Your task to perform on an android device: uninstall "Instagram" Image 0: 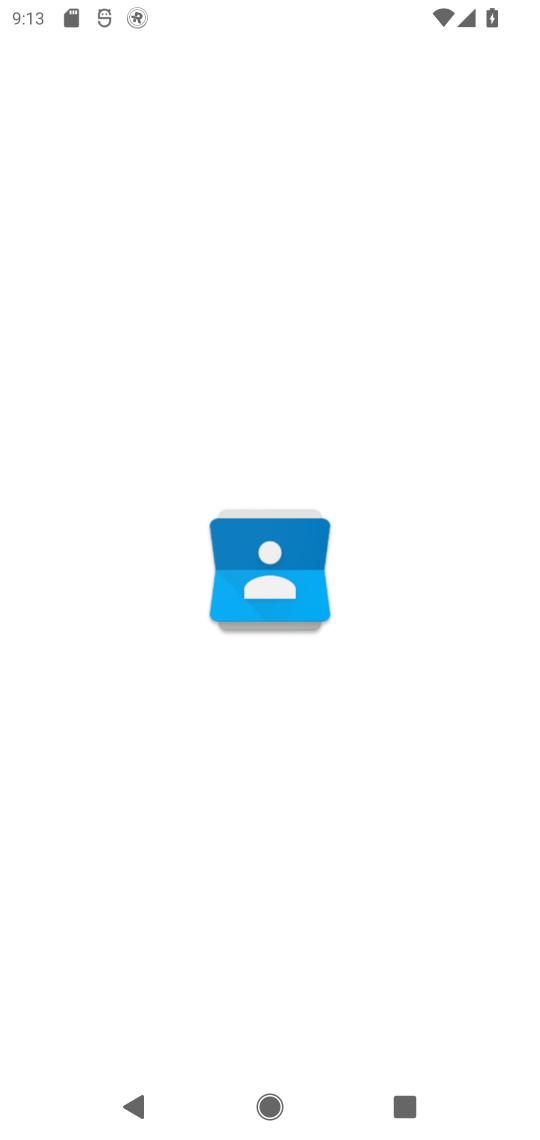
Step 0: press home button
Your task to perform on an android device: uninstall "Instagram" Image 1: 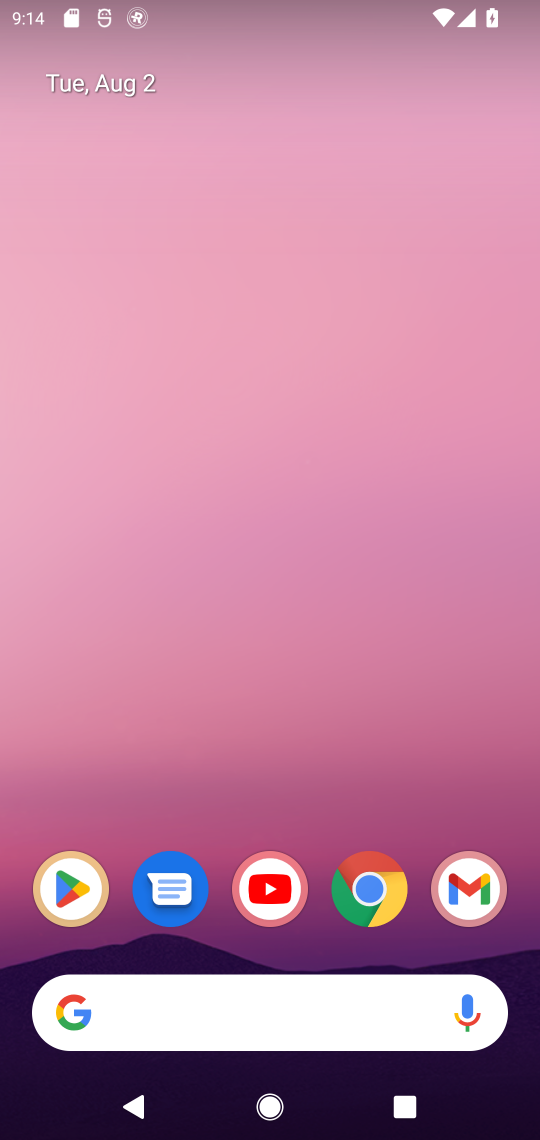
Step 1: click (77, 890)
Your task to perform on an android device: uninstall "Instagram" Image 2: 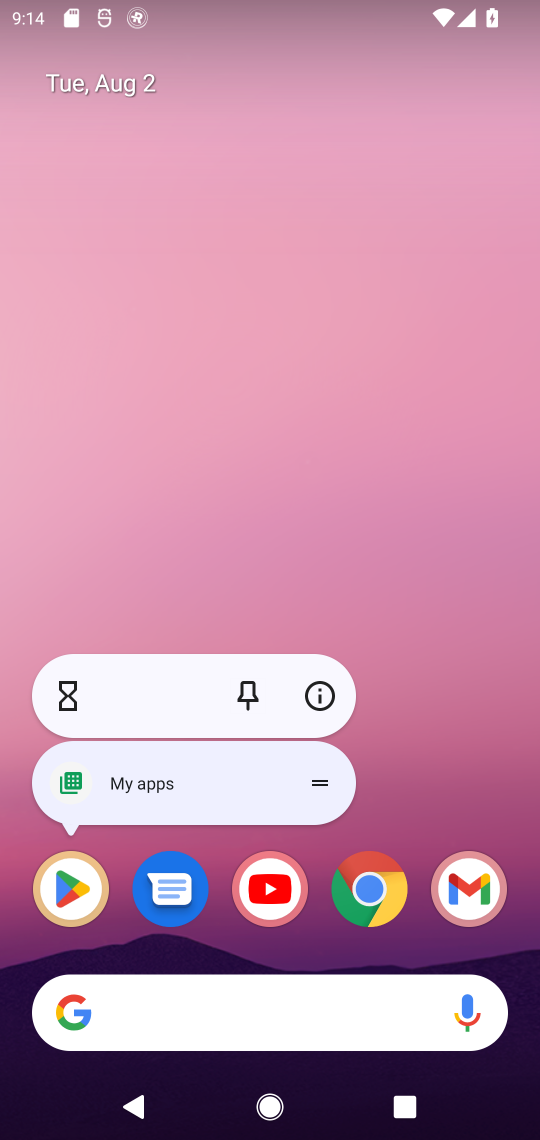
Step 2: click (77, 889)
Your task to perform on an android device: uninstall "Instagram" Image 3: 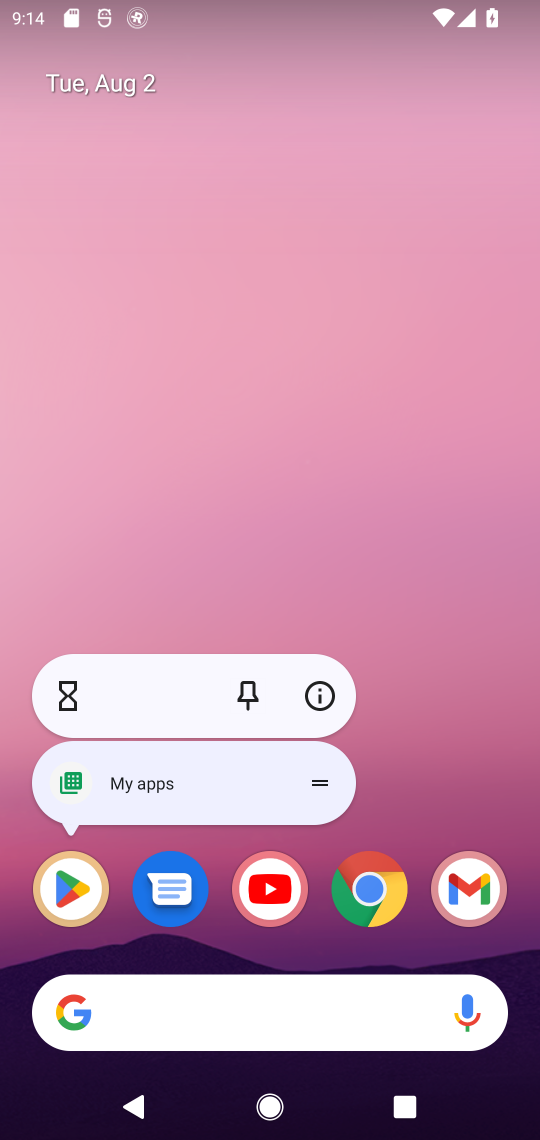
Step 3: click (77, 890)
Your task to perform on an android device: uninstall "Instagram" Image 4: 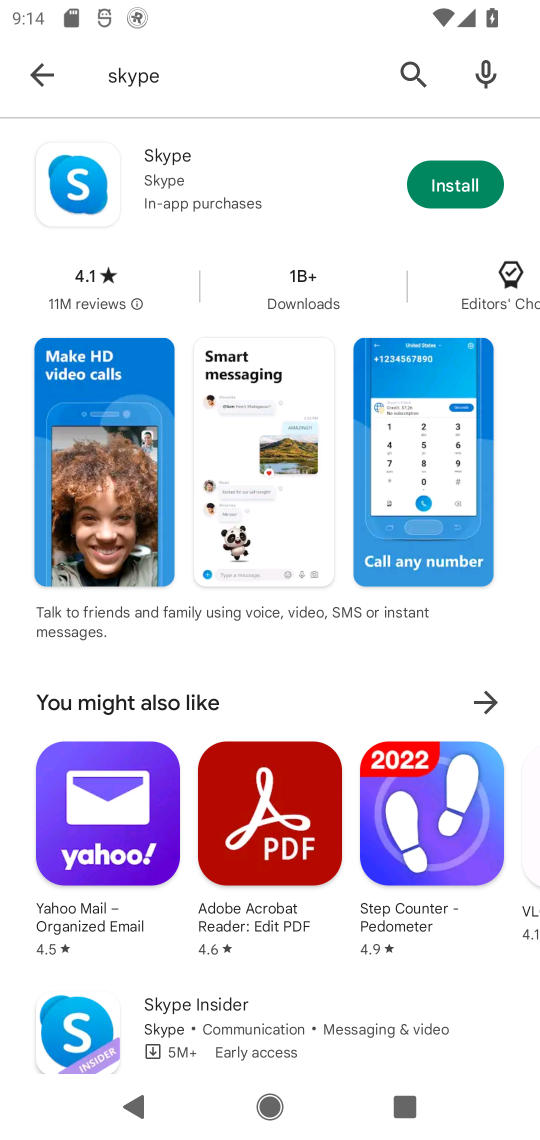
Step 4: click (410, 71)
Your task to perform on an android device: uninstall "Instagram" Image 5: 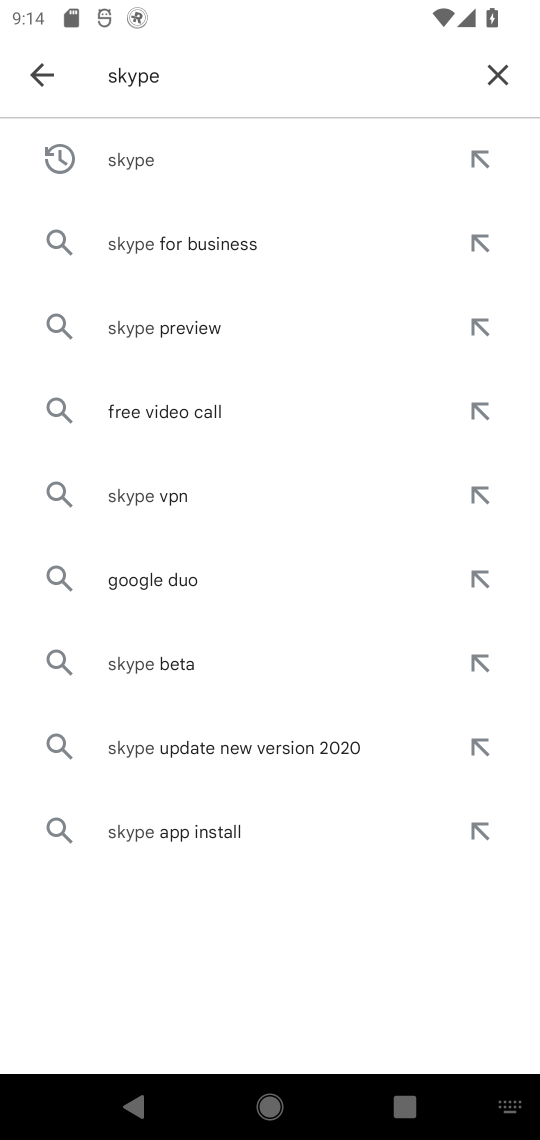
Step 5: click (495, 55)
Your task to perform on an android device: uninstall "Instagram" Image 6: 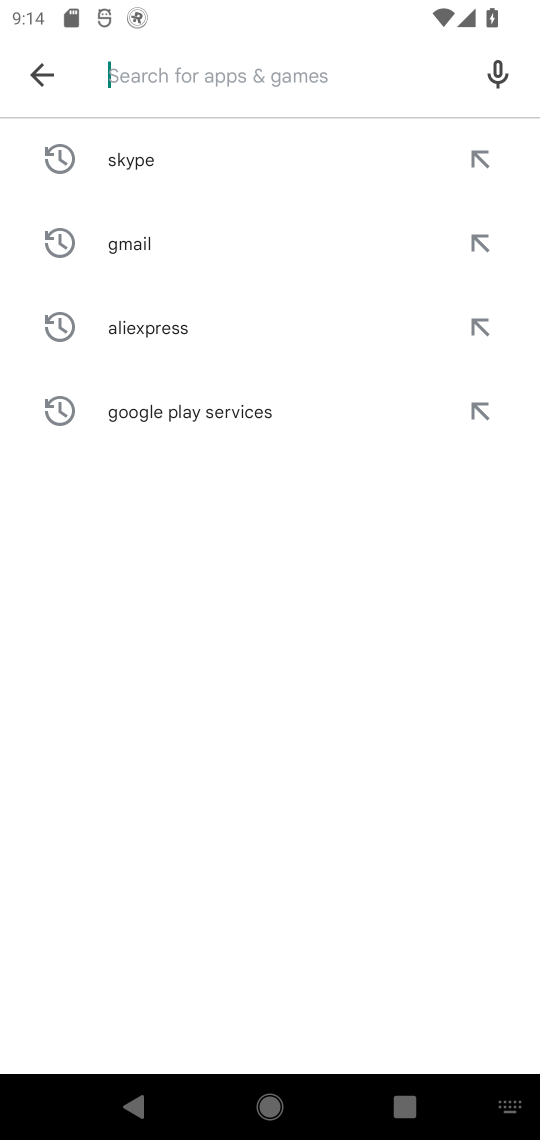
Step 6: type "Instagram"
Your task to perform on an android device: uninstall "Instagram" Image 7: 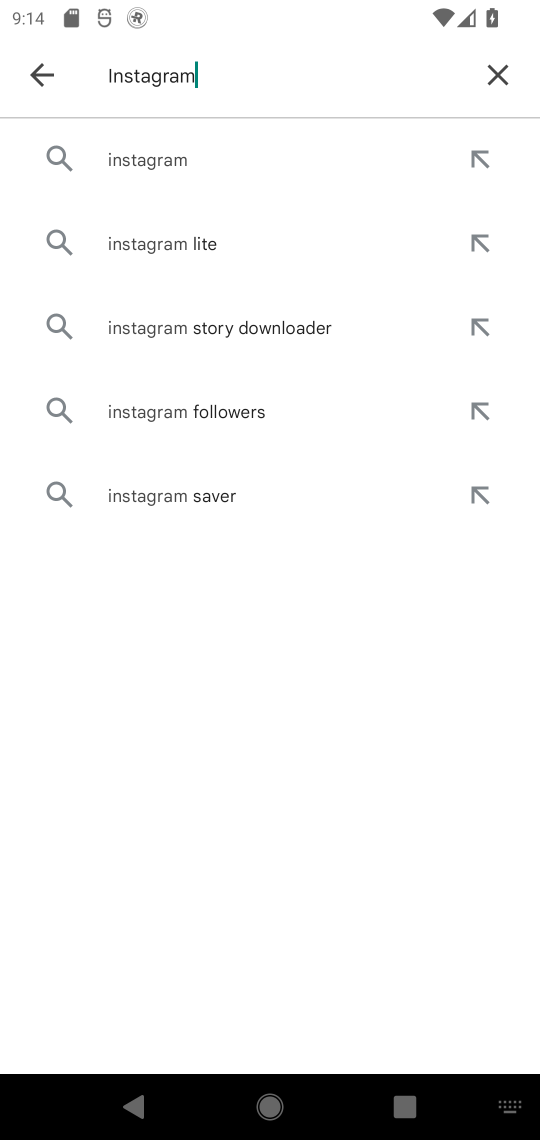
Step 7: click (160, 154)
Your task to perform on an android device: uninstall "Instagram" Image 8: 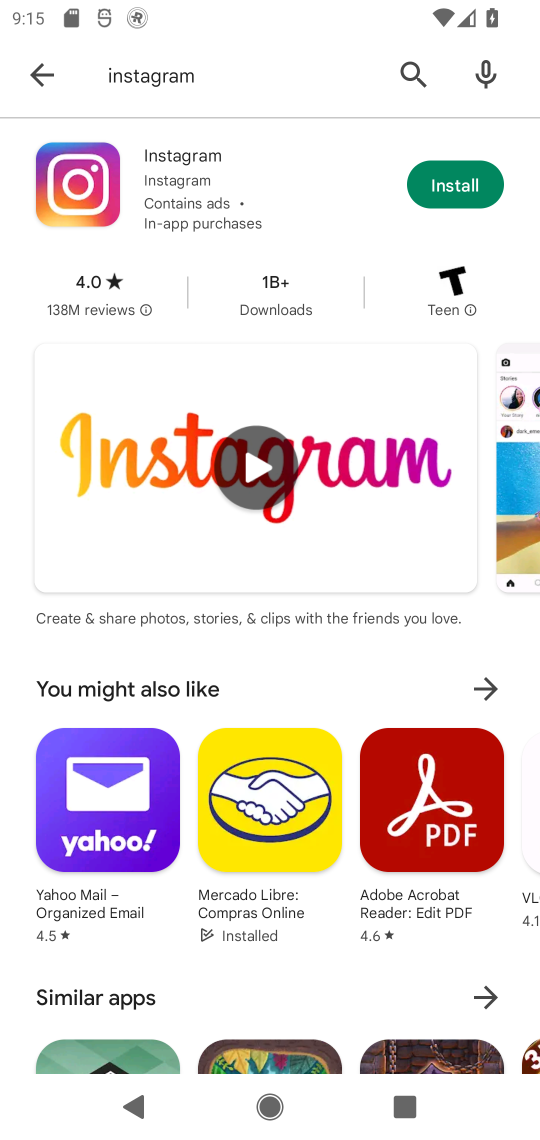
Step 8: task complete